Your task to perform on an android device: open sync settings in chrome Image 0: 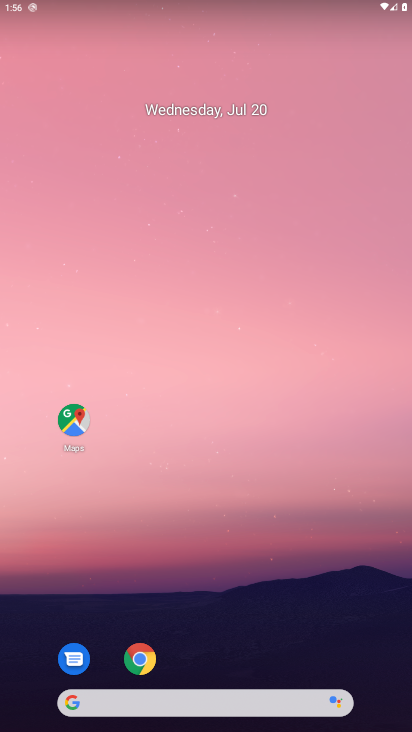
Step 0: click (122, 658)
Your task to perform on an android device: open sync settings in chrome Image 1: 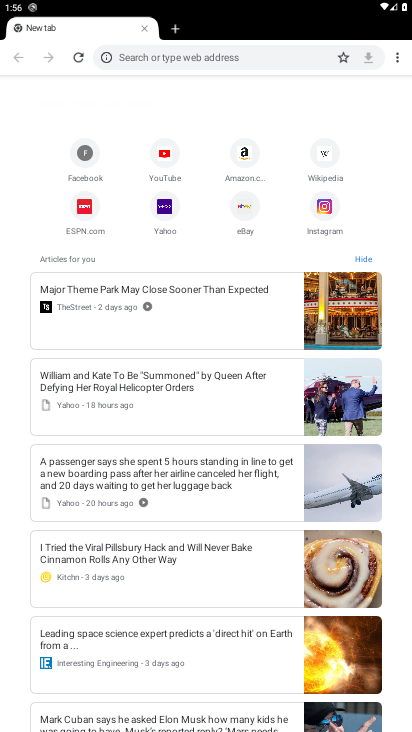
Step 1: click (399, 60)
Your task to perform on an android device: open sync settings in chrome Image 2: 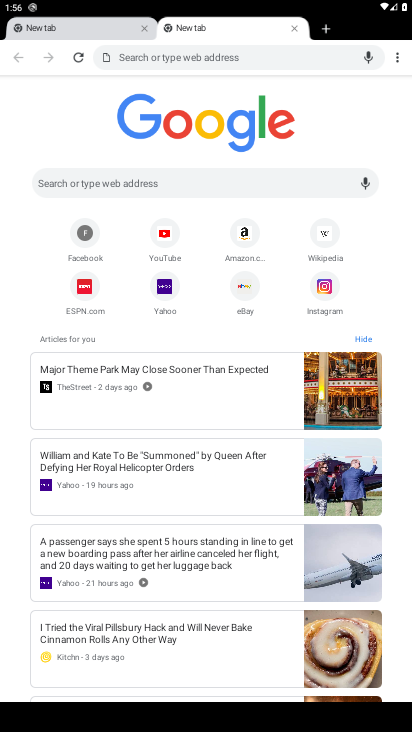
Step 2: click (398, 59)
Your task to perform on an android device: open sync settings in chrome Image 3: 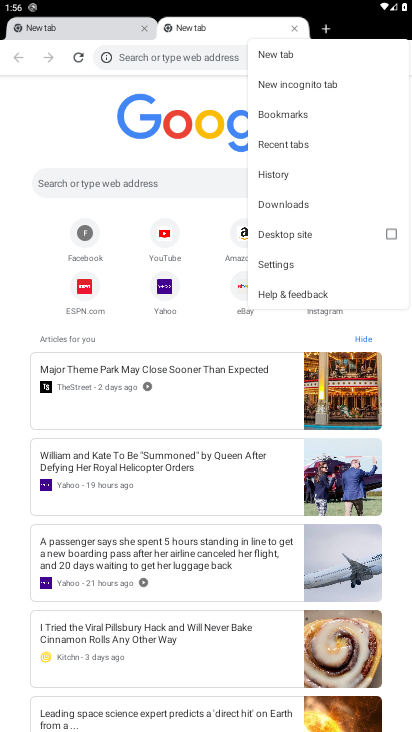
Step 3: click (287, 253)
Your task to perform on an android device: open sync settings in chrome Image 4: 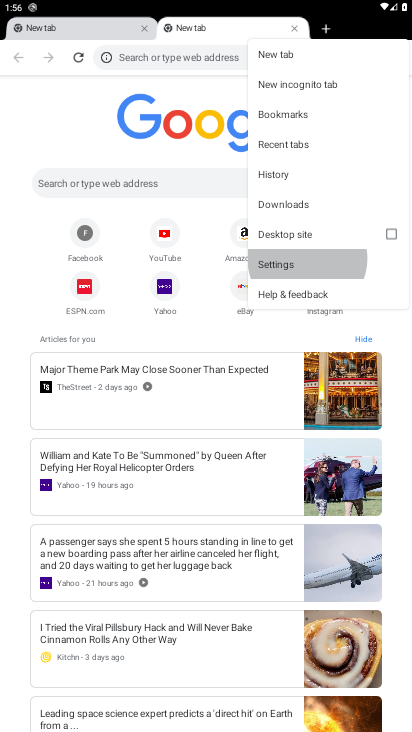
Step 4: click (276, 267)
Your task to perform on an android device: open sync settings in chrome Image 5: 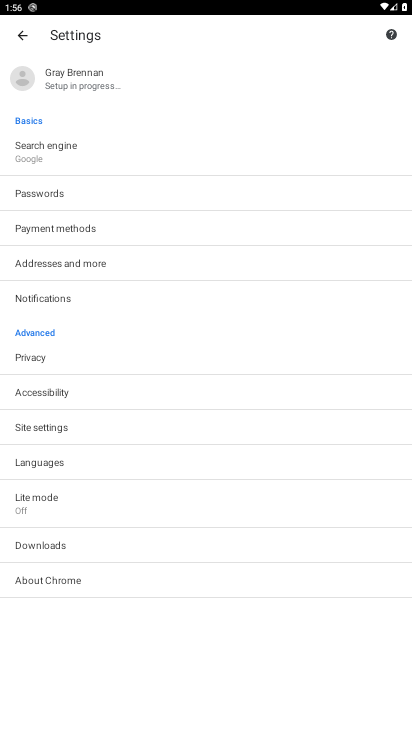
Step 5: click (39, 430)
Your task to perform on an android device: open sync settings in chrome Image 6: 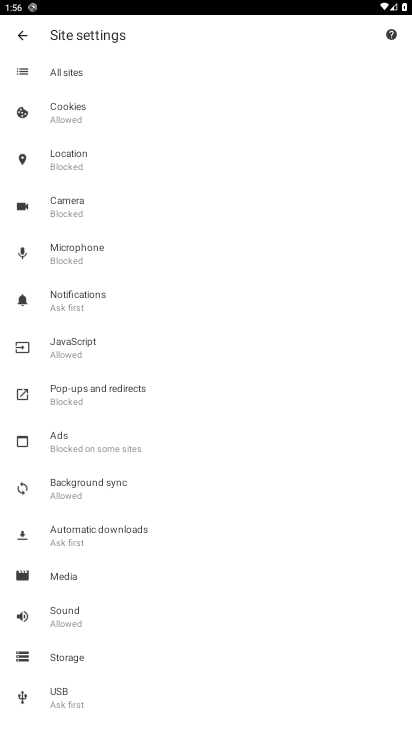
Step 6: task complete